Your task to perform on an android device: toggle translation in the chrome app Image 0: 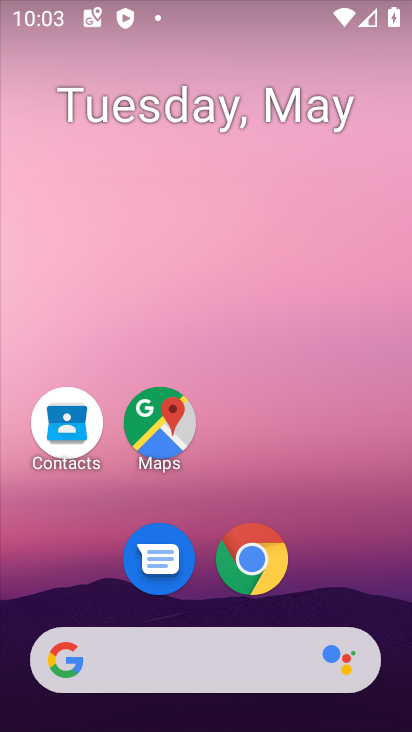
Step 0: click (271, 584)
Your task to perform on an android device: toggle translation in the chrome app Image 1: 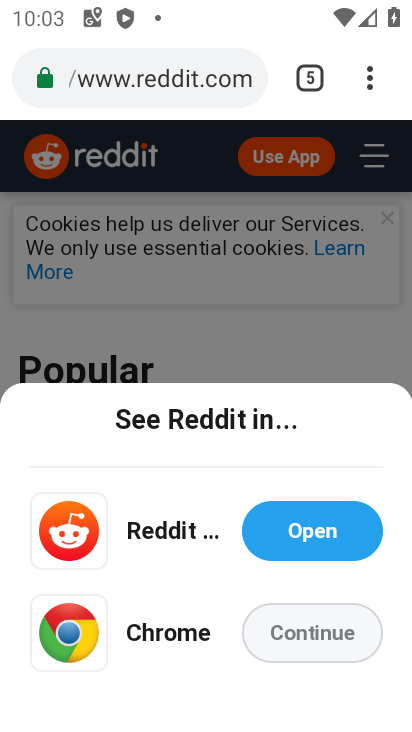
Step 1: click (368, 84)
Your task to perform on an android device: toggle translation in the chrome app Image 2: 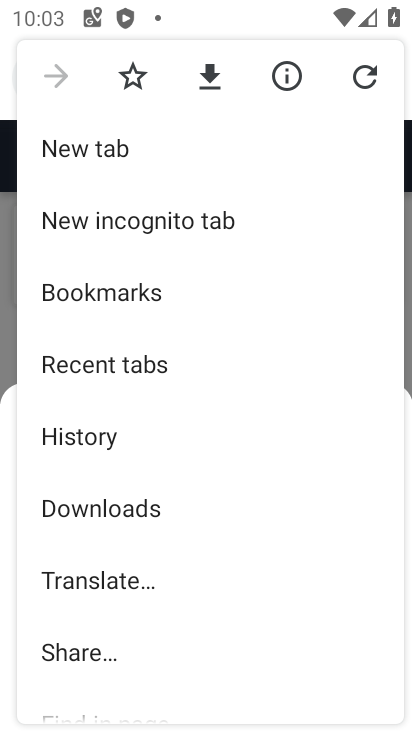
Step 2: drag from (254, 640) to (245, 479)
Your task to perform on an android device: toggle translation in the chrome app Image 3: 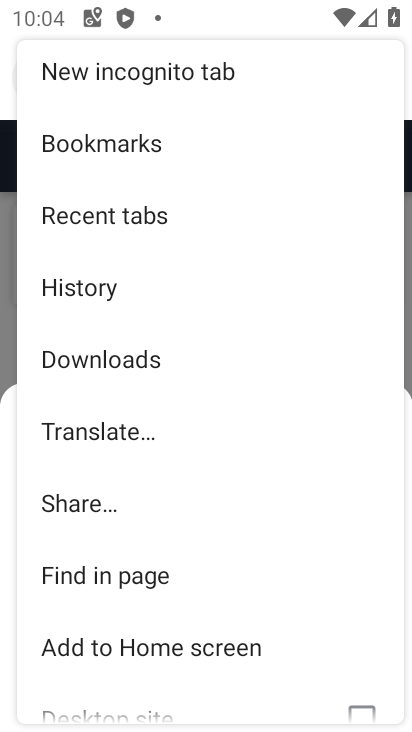
Step 3: drag from (240, 583) to (253, 264)
Your task to perform on an android device: toggle translation in the chrome app Image 4: 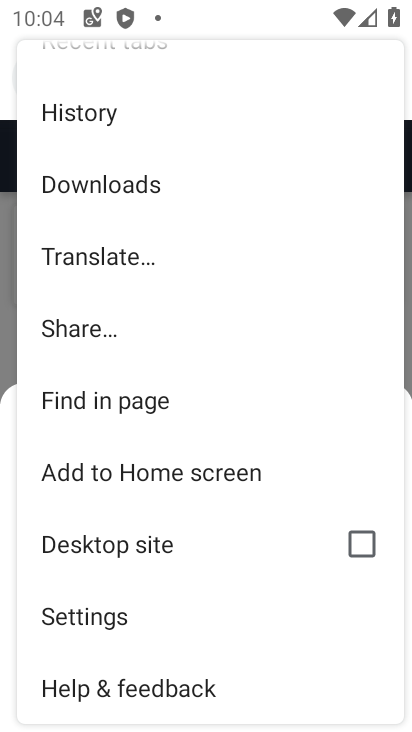
Step 4: click (188, 595)
Your task to perform on an android device: toggle translation in the chrome app Image 5: 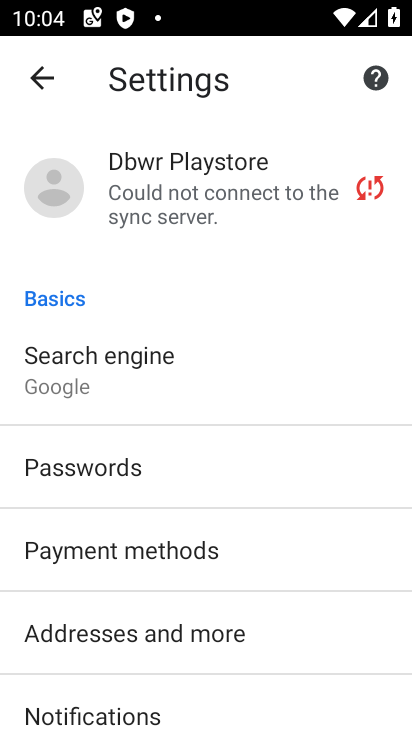
Step 5: drag from (263, 609) to (266, 336)
Your task to perform on an android device: toggle translation in the chrome app Image 6: 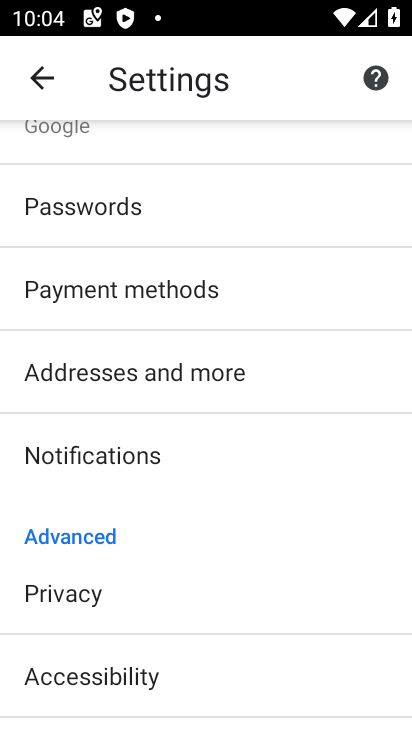
Step 6: click (254, 639)
Your task to perform on an android device: toggle translation in the chrome app Image 7: 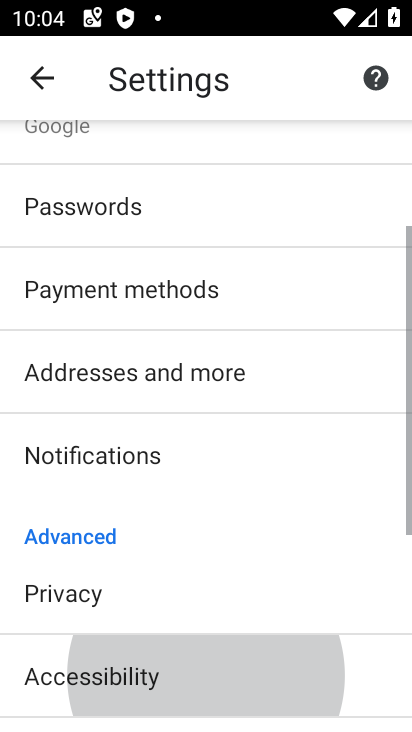
Step 7: task complete